Your task to perform on an android device: Open Yahoo.com Image 0: 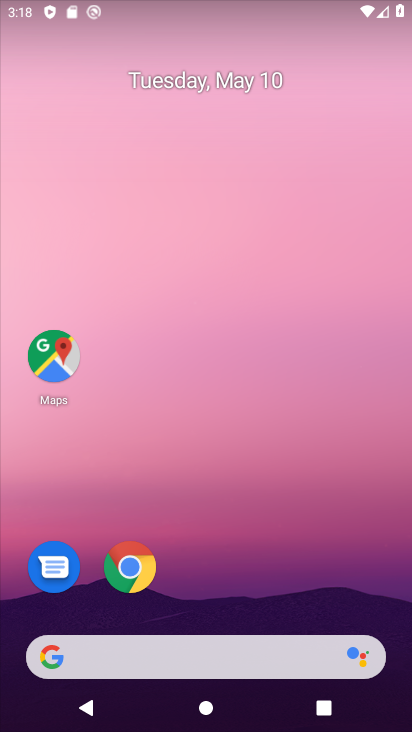
Step 0: click (134, 568)
Your task to perform on an android device: Open Yahoo.com Image 1: 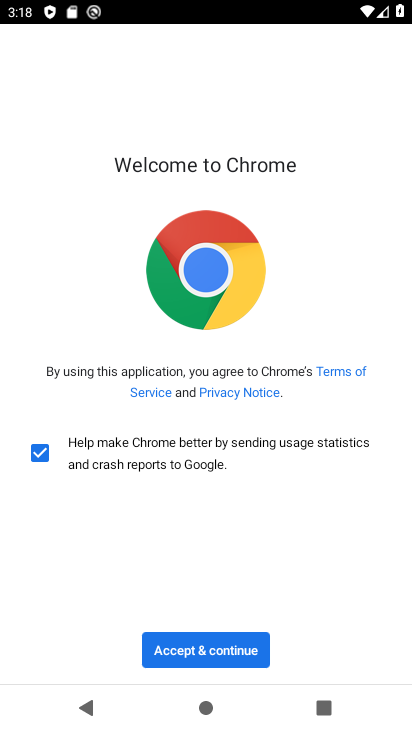
Step 1: click (219, 647)
Your task to perform on an android device: Open Yahoo.com Image 2: 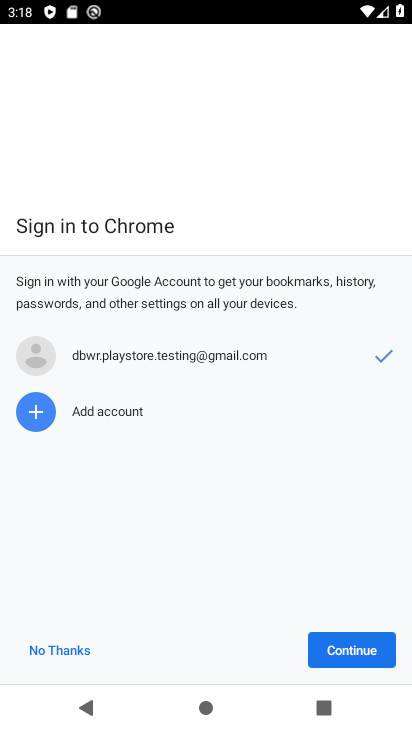
Step 2: click (341, 649)
Your task to perform on an android device: Open Yahoo.com Image 3: 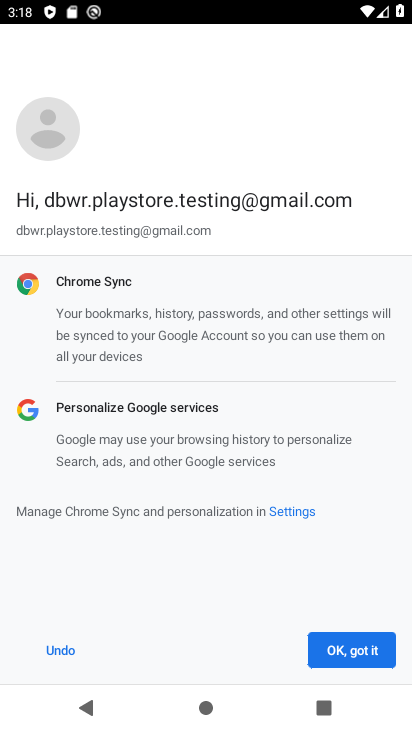
Step 3: click (341, 649)
Your task to perform on an android device: Open Yahoo.com Image 4: 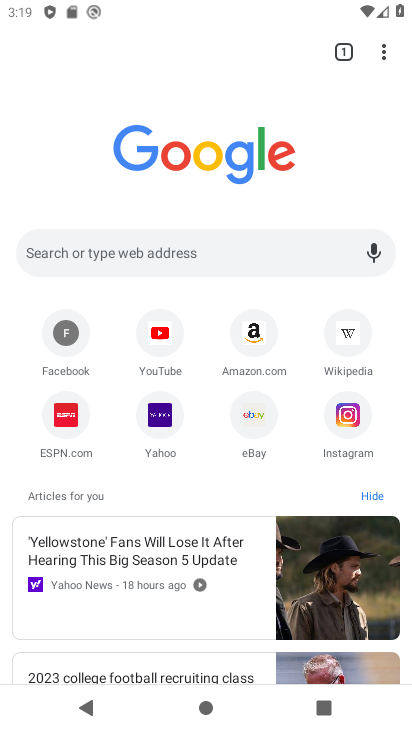
Step 4: click (169, 419)
Your task to perform on an android device: Open Yahoo.com Image 5: 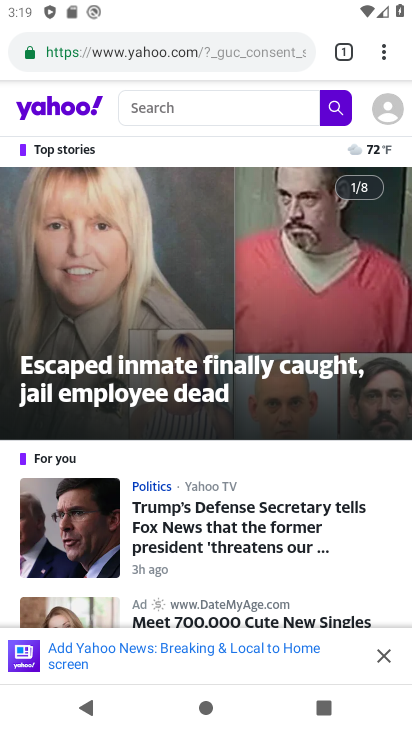
Step 5: task complete